Your task to perform on an android device: search for starred emails in the gmail app Image 0: 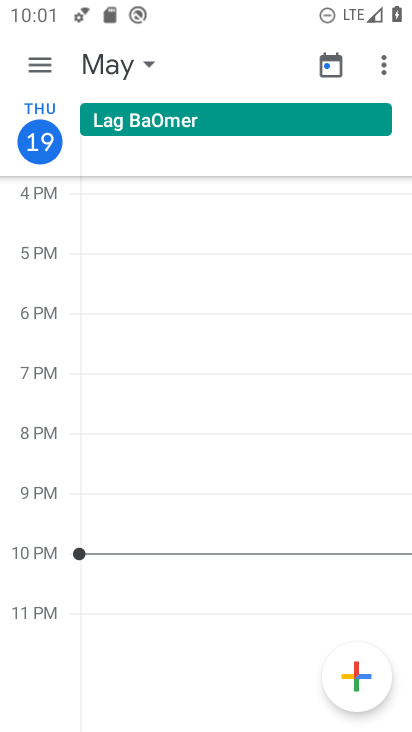
Step 0: press home button
Your task to perform on an android device: search for starred emails in the gmail app Image 1: 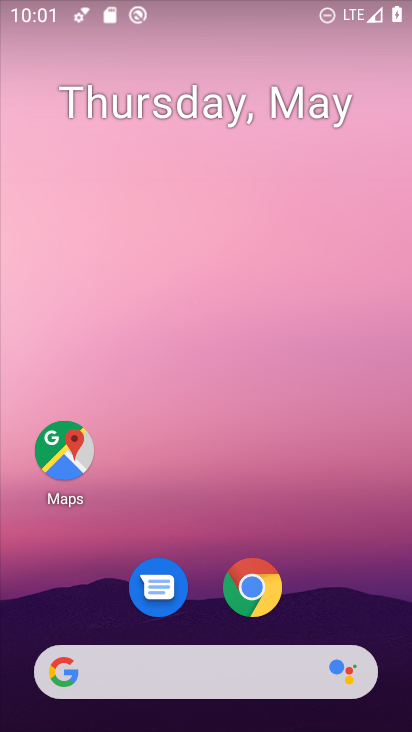
Step 1: drag from (372, 610) to (343, 54)
Your task to perform on an android device: search for starred emails in the gmail app Image 2: 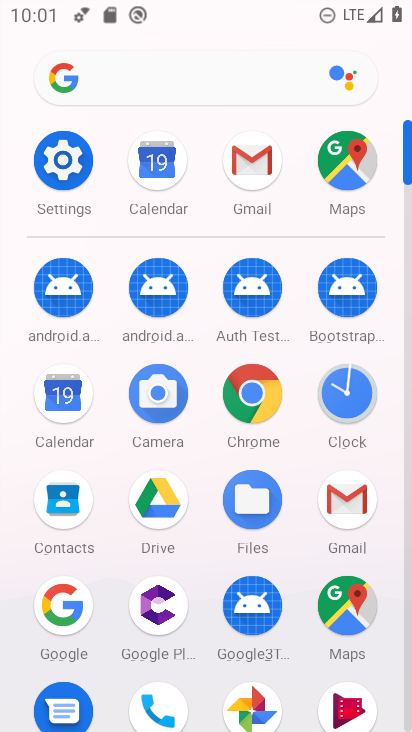
Step 2: click (256, 167)
Your task to perform on an android device: search for starred emails in the gmail app Image 3: 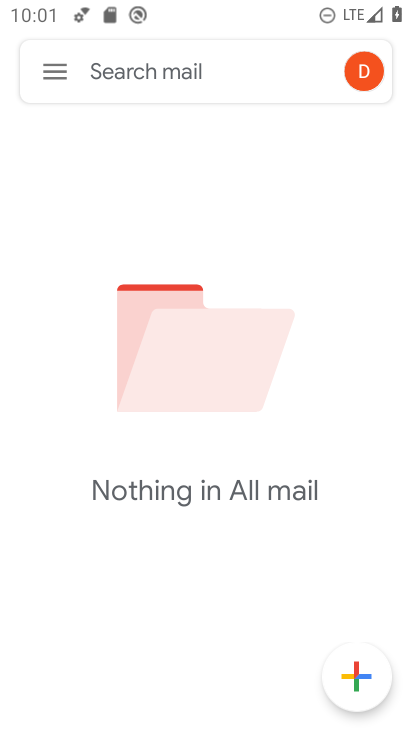
Step 3: click (44, 75)
Your task to perform on an android device: search for starred emails in the gmail app Image 4: 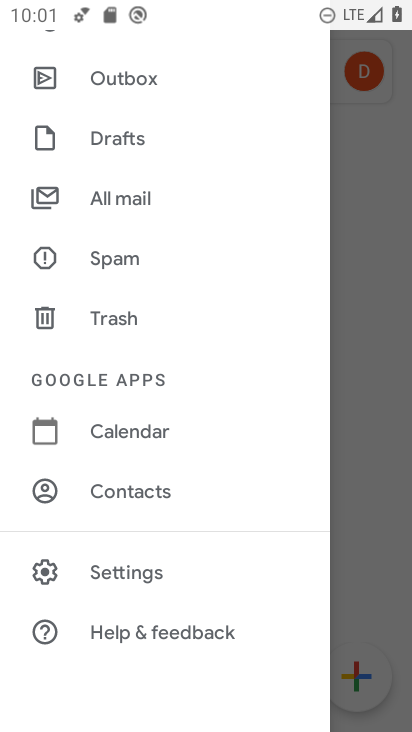
Step 4: drag from (181, 208) to (159, 540)
Your task to perform on an android device: search for starred emails in the gmail app Image 5: 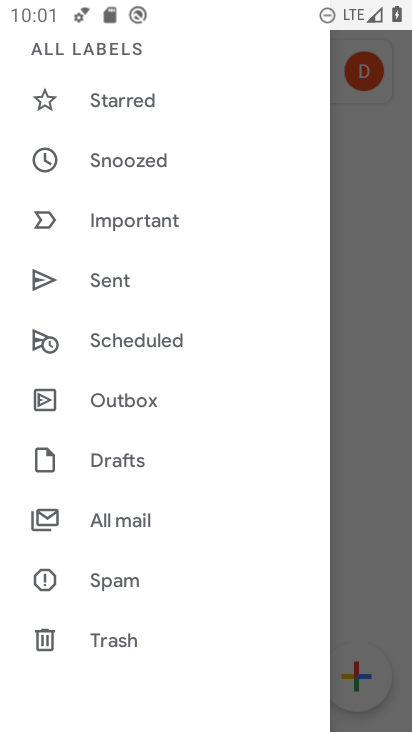
Step 5: click (112, 109)
Your task to perform on an android device: search for starred emails in the gmail app Image 6: 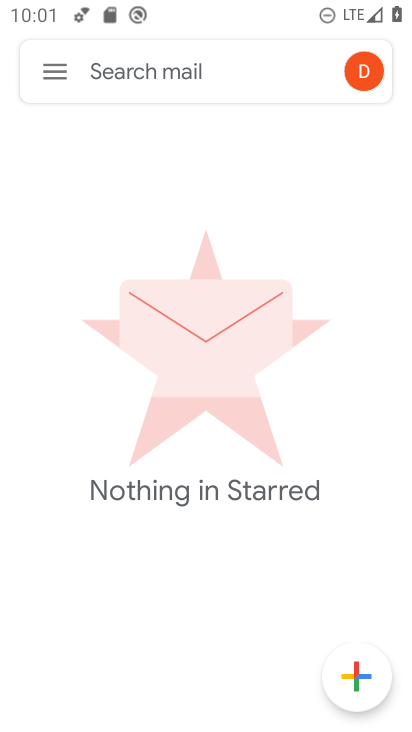
Step 6: task complete